Your task to perform on an android device: turn off improve location accuracy Image 0: 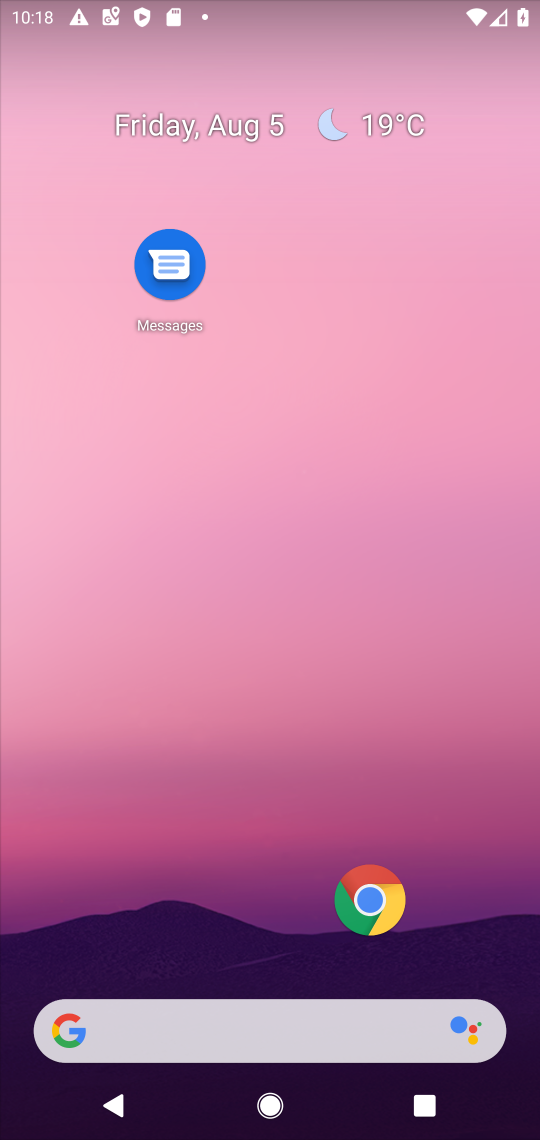
Step 0: press home button
Your task to perform on an android device: turn off improve location accuracy Image 1: 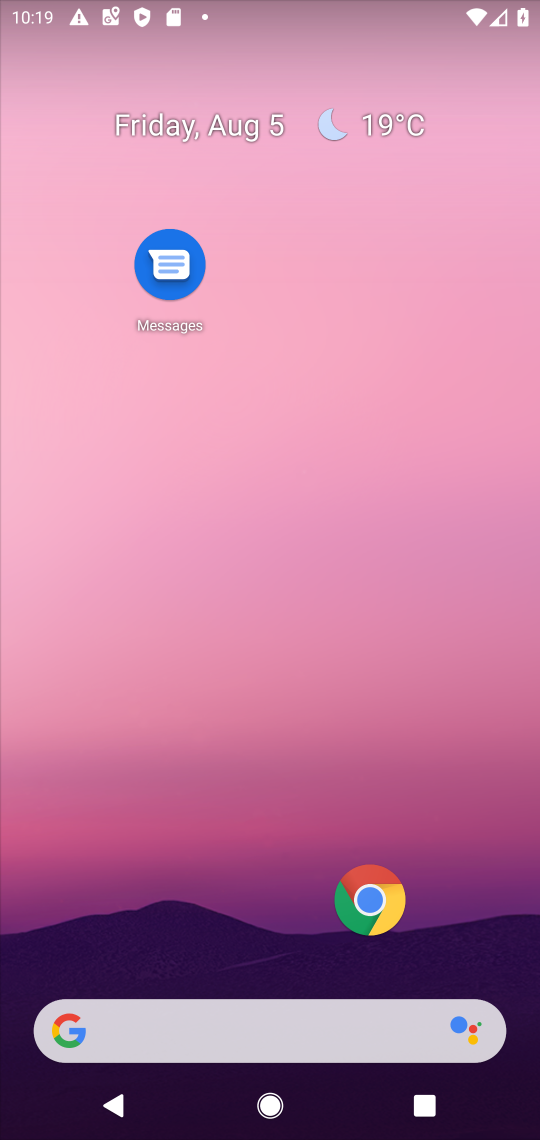
Step 1: drag from (138, 851) to (127, 66)
Your task to perform on an android device: turn off improve location accuracy Image 2: 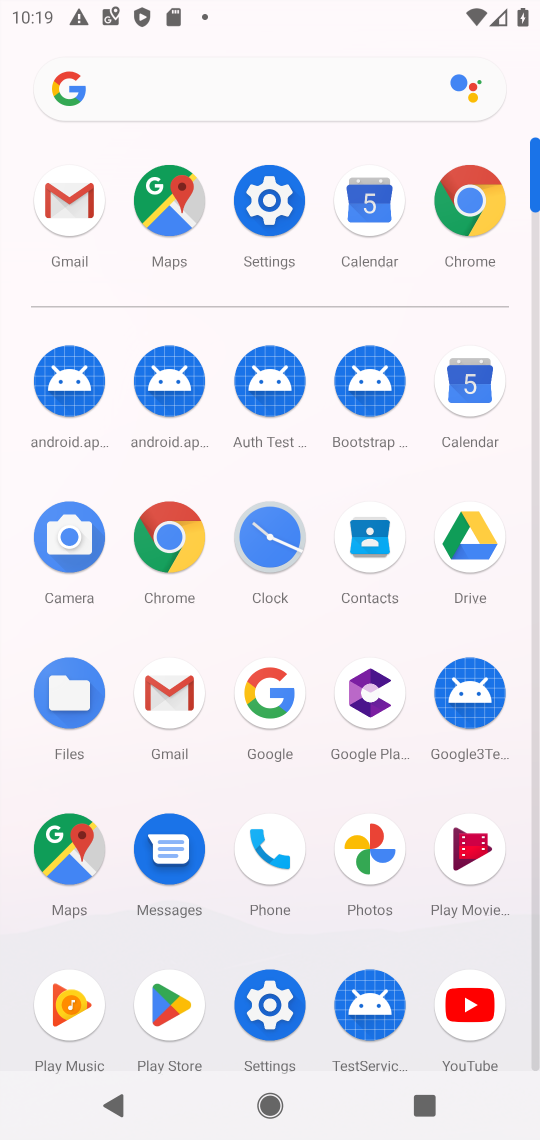
Step 2: click (279, 978)
Your task to perform on an android device: turn off improve location accuracy Image 3: 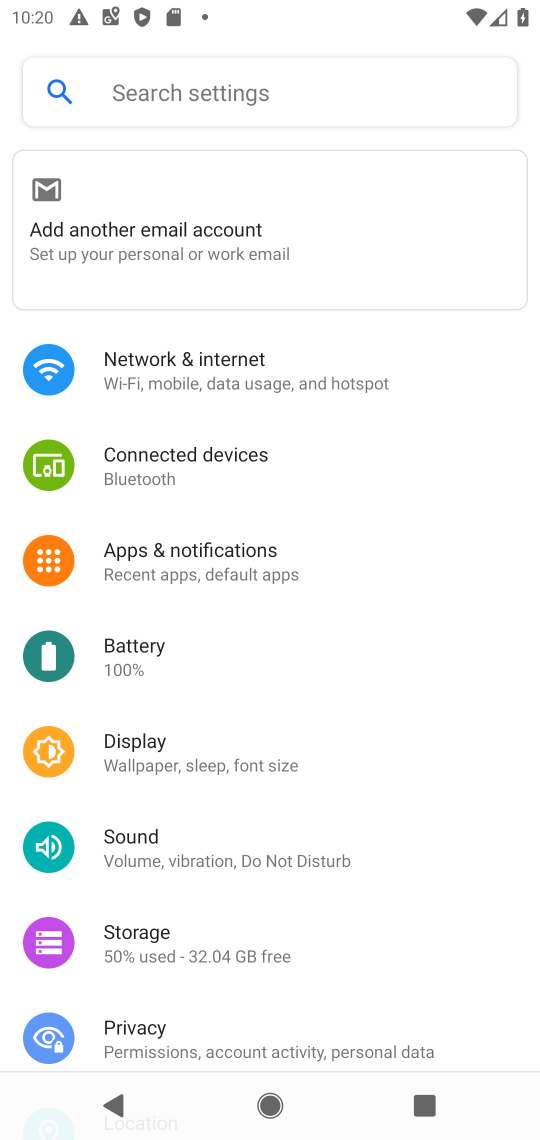
Step 3: drag from (131, 970) to (175, 647)
Your task to perform on an android device: turn off improve location accuracy Image 4: 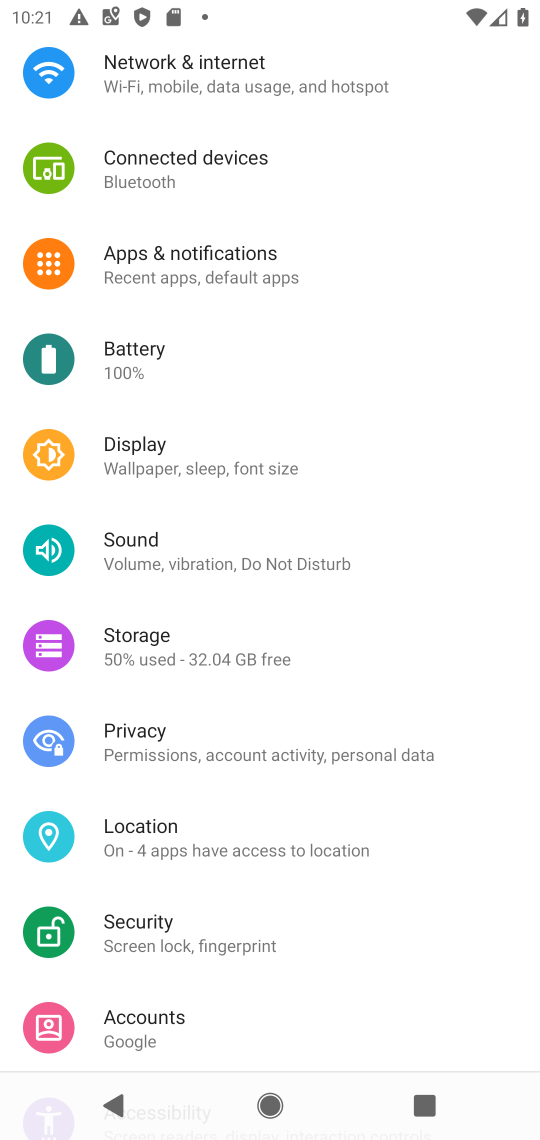
Step 4: click (204, 838)
Your task to perform on an android device: turn off improve location accuracy Image 5: 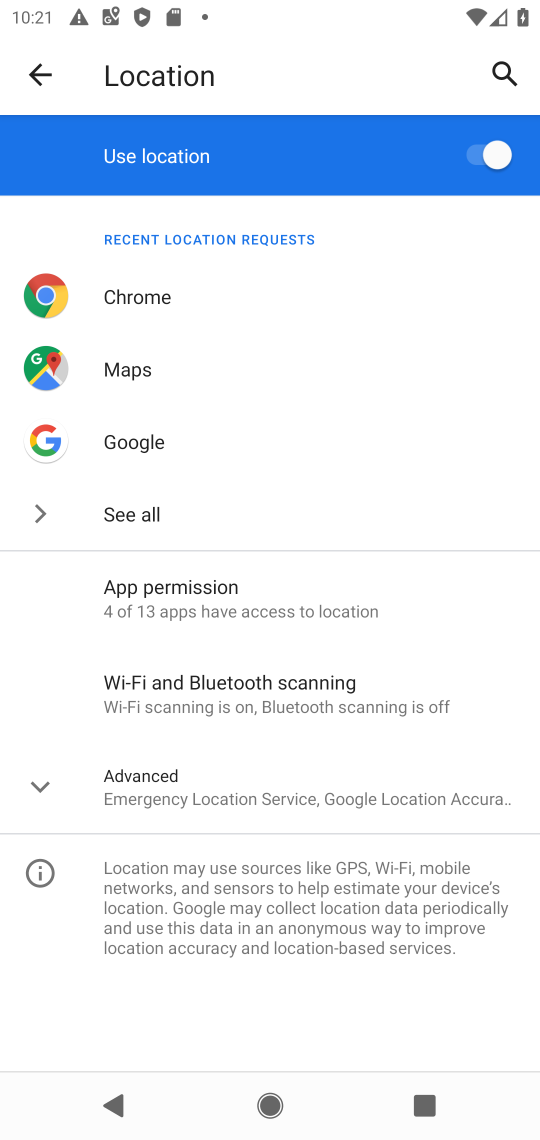
Step 5: click (182, 763)
Your task to perform on an android device: turn off improve location accuracy Image 6: 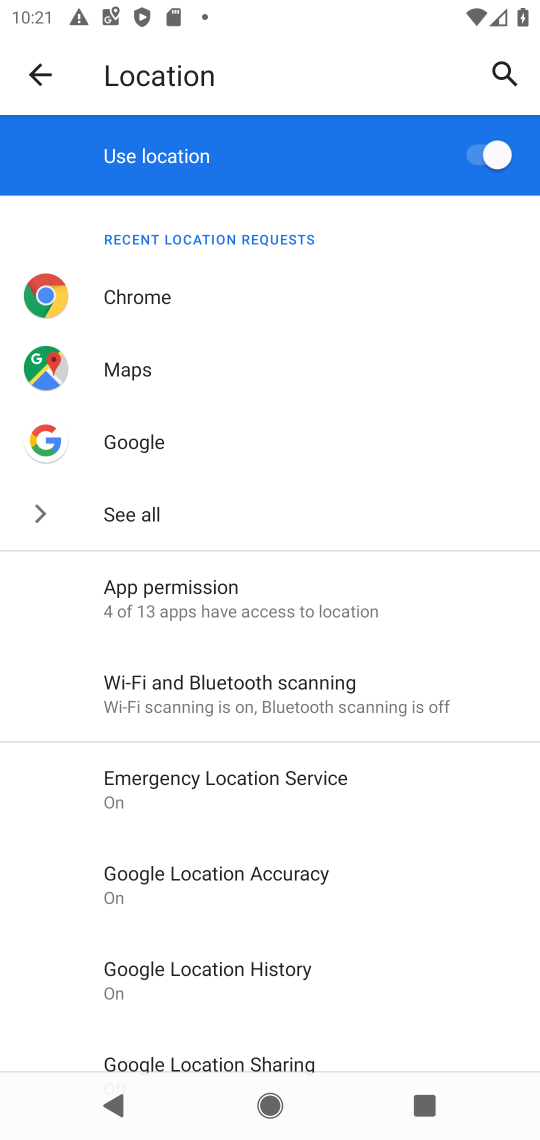
Step 6: click (182, 763)
Your task to perform on an android device: turn off improve location accuracy Image 7: 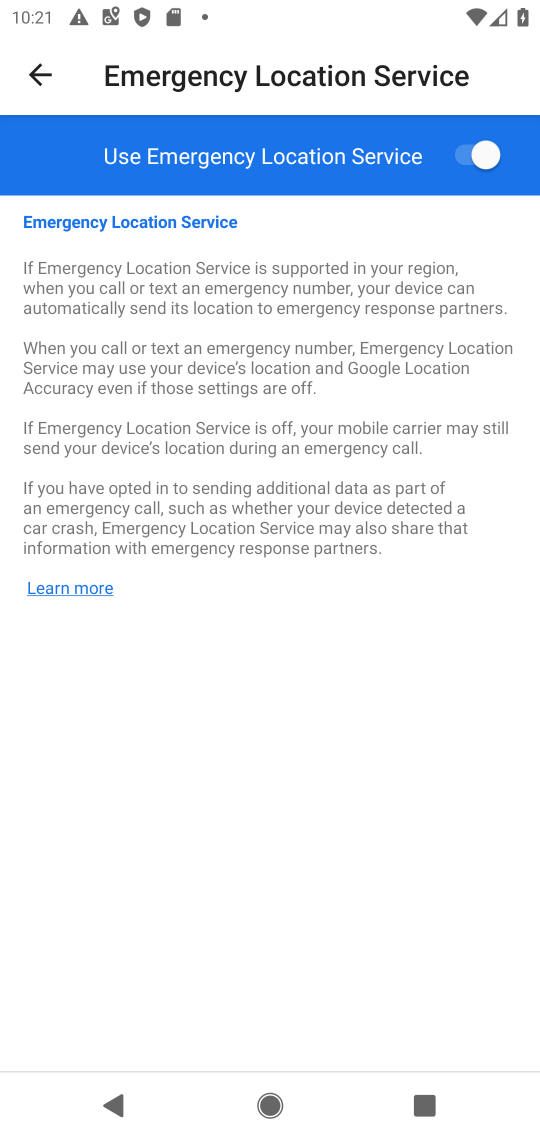
Step 7: click (343, 153)
Your task to perform on an android device: turn off improve location accuracy Image 8: 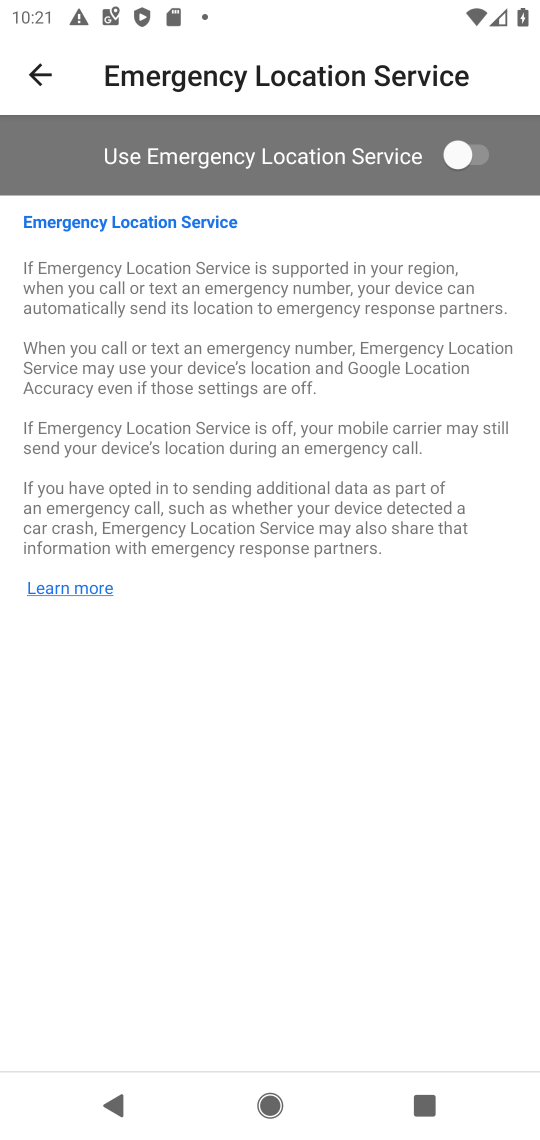
Step 8: task complete